Your task to perform on an android device: change the clock display to show seconds Image 0: 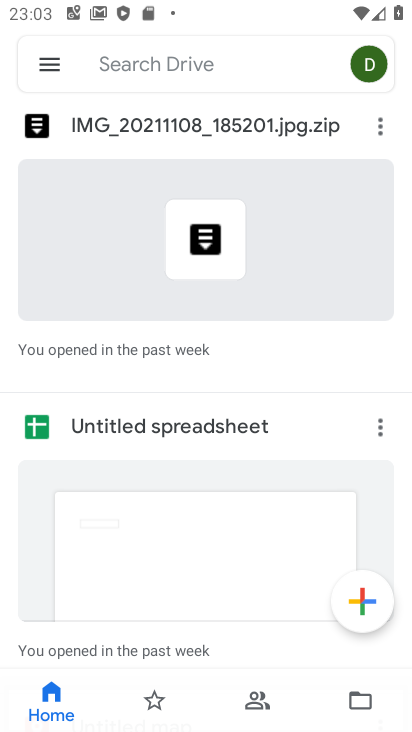
Step 0: press home button
Your task to perform on an android device: change the clock display to show seconds Image 1: 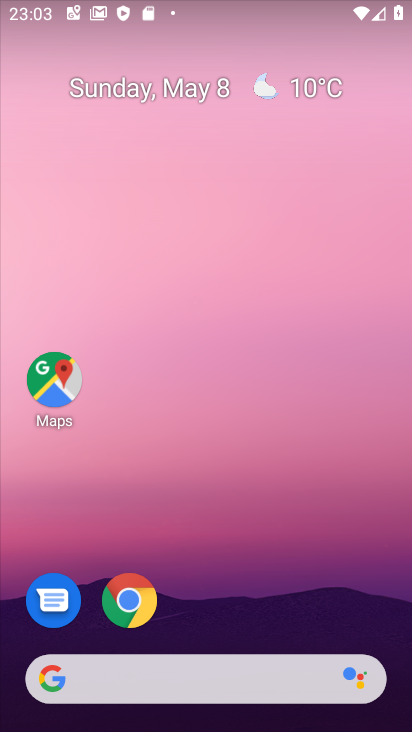
Step 1: drag from (247, 615) to (357, 0)
Your task to perform on an android device: change the clock display to show seconds Image 2: 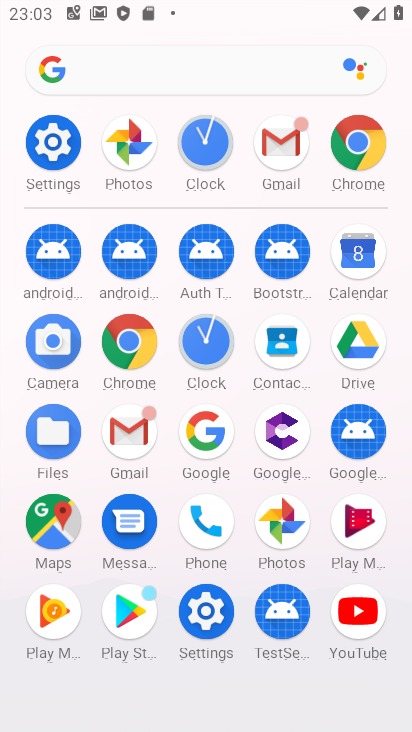
Step 2: click (197, 352)
Your task to perform on an android device: change the clock display to show seconds Image 3: 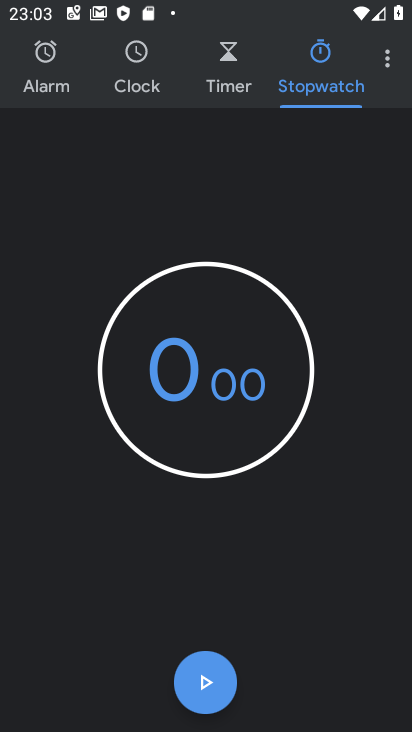
Step 3: click (377, 47)
Your task to perform on an android device: change the clock display to show seconds Image 4: 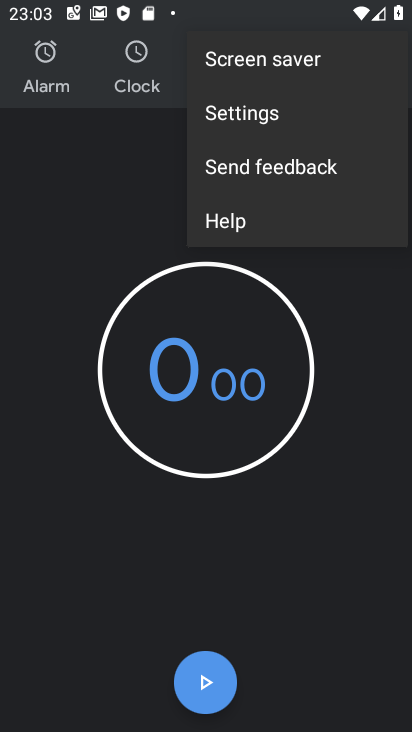
Step 4: click (267, 114)
Your task to perform on an android device: change the clock display to show seconds Image 5: 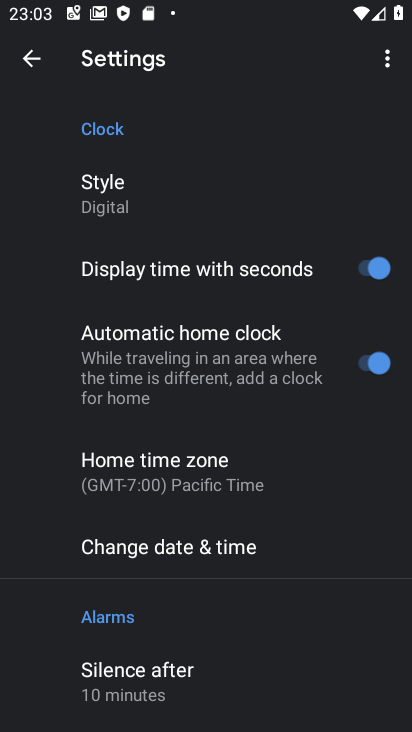
Step 5: task complete